Your task to perform on an android device: Go to internet settings Image 0: 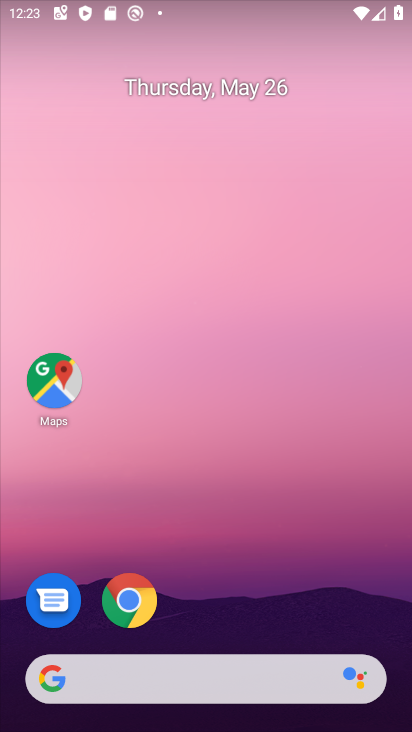
Step 0: drag from (256, 566) to (263, 177)
Your task to perform on an android device: Go to internet settings Image 1: 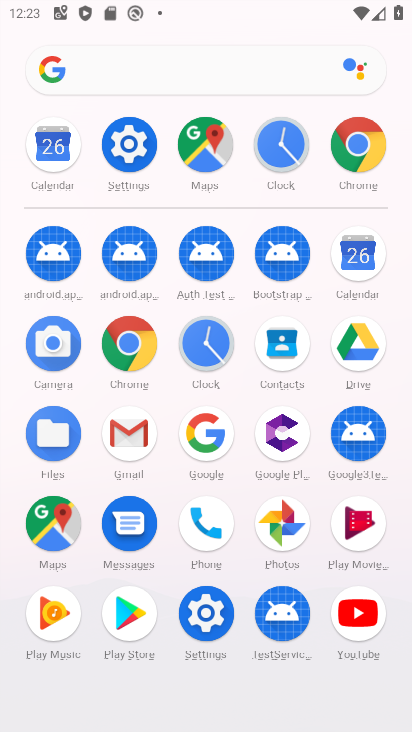
Step 1: click (133, 152)
Your task to perform on an android device: Go to internet settings Image 2: 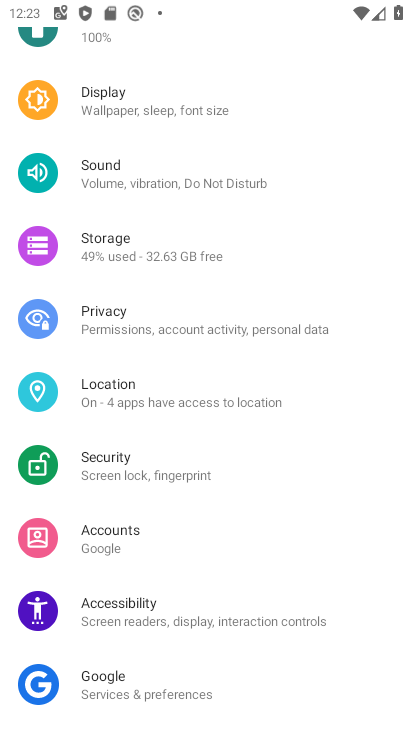
Step 2: drag from (276, 131) to (252, 512)
Your task to perform on an android device: Go to internet settings Image 3: 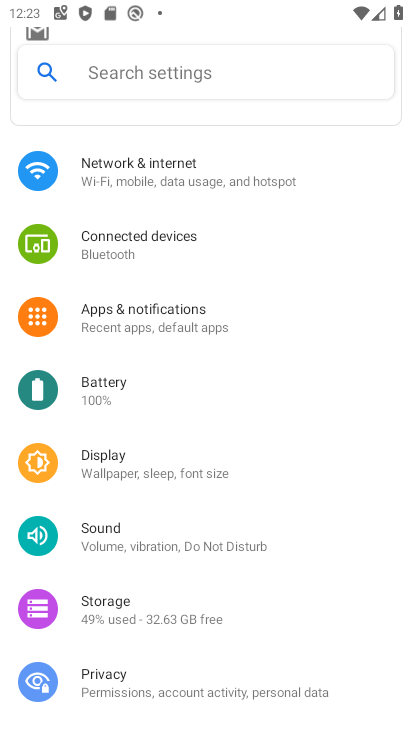
Step 3: click (164, 183)
Your task to perform on an android device: Go to internet settings Image 4: 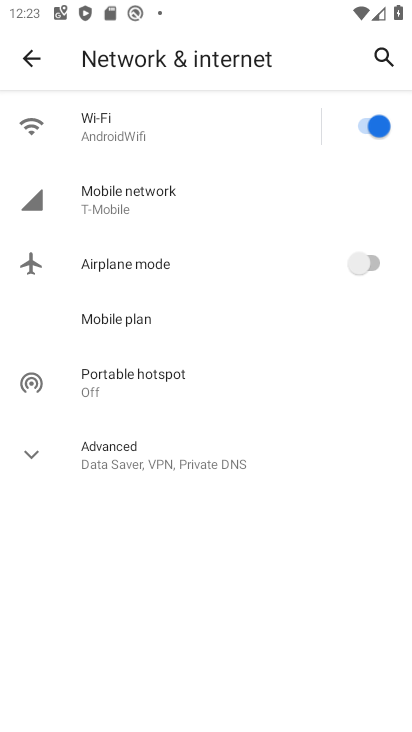
Step 4: click (184, 469)
Your task to perform on an android device: Go to internet settings Image 5: 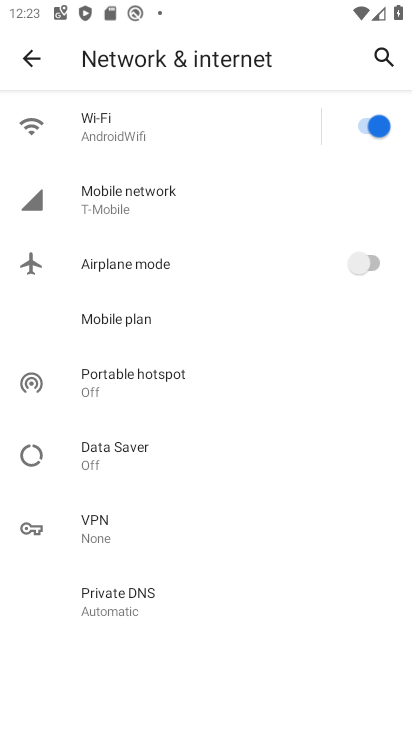
Step 5: task complete